Your task to perform on an android device: Go to battery settings Image 0: 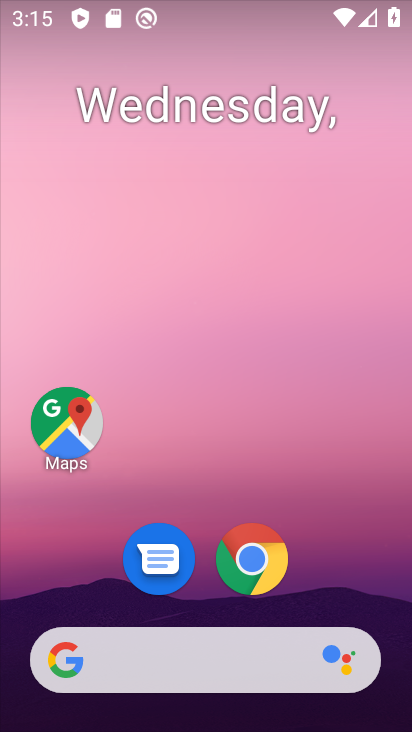
Step 0: drag from (85, 575) to (230, 157)
Your task to perform on an android device: Go to battery settings Image 1: 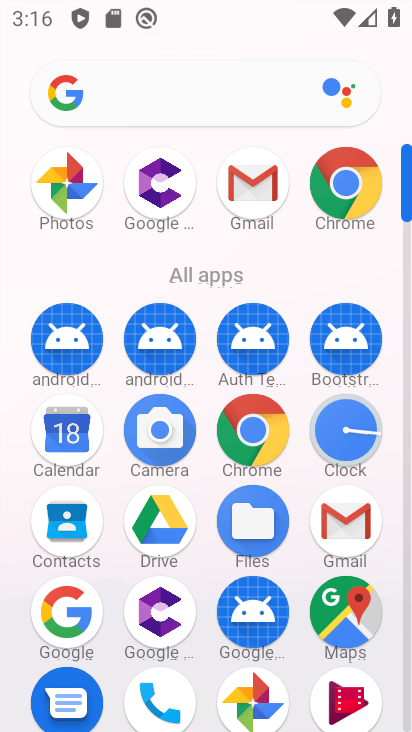
Step 1: drag from (171, 628) to (230, 346)
Your task to perform on an android device: Go to battery settings Image 2: 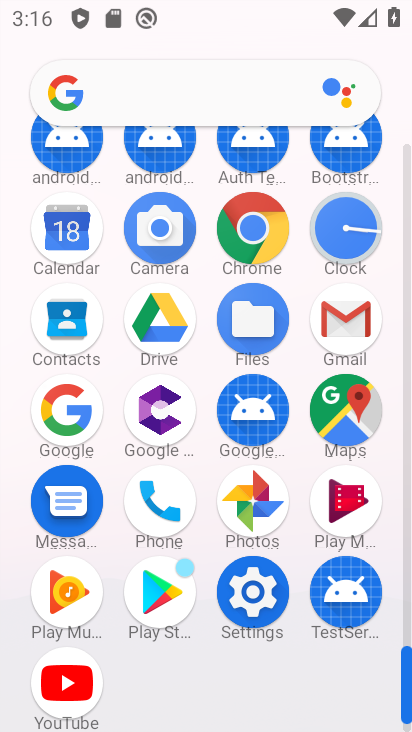
Step 2: click (263, 587)
Your task to perform on an android device: Go to battery settings Image 3: 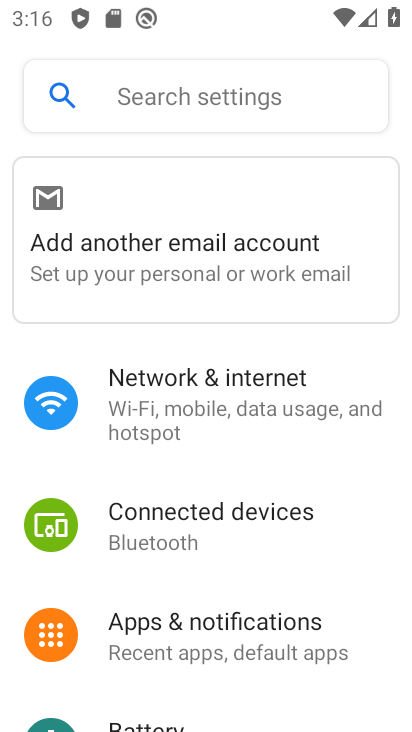
Step 3: drag from (165, 609) to (266, 256)
Your task to perform on an android device: Go to battery settings Image 4: 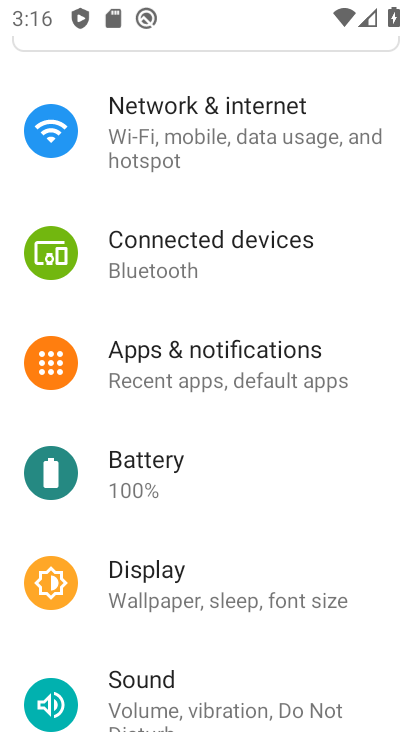
Step 4: click (171, 488)
Your task to perform on an android device: Go to battery settings Image 5: 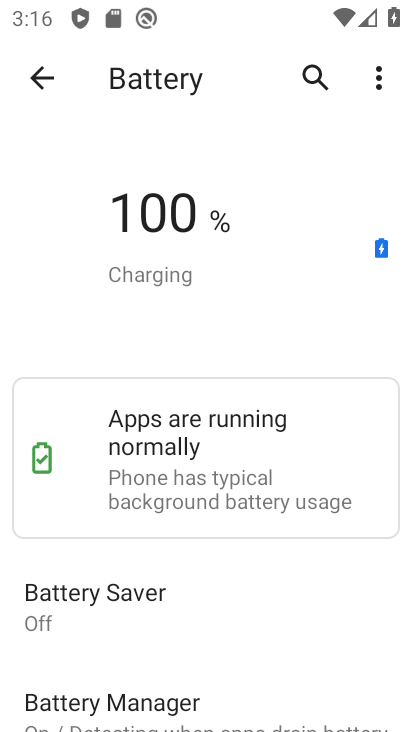
Step 5: task complete